Your task to perform on an android device: Open the Play Movies app and select the watchlist tab. Image 0: 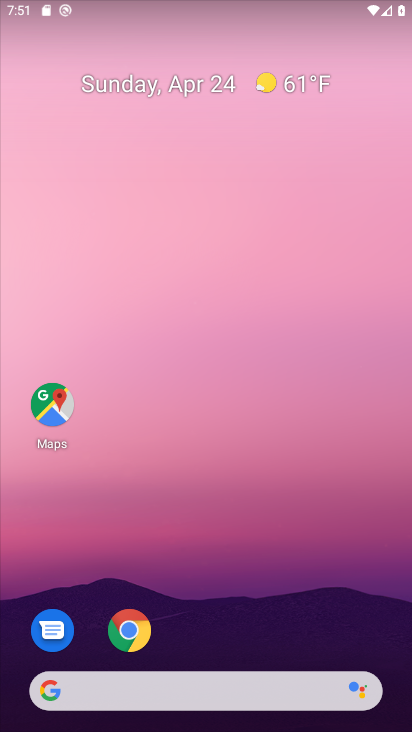
Step 0: drag from (361, 610) to (368, 30)
Your task to perform on an android device: Open the Play Movies app and select the watchlist tab. Image 1: 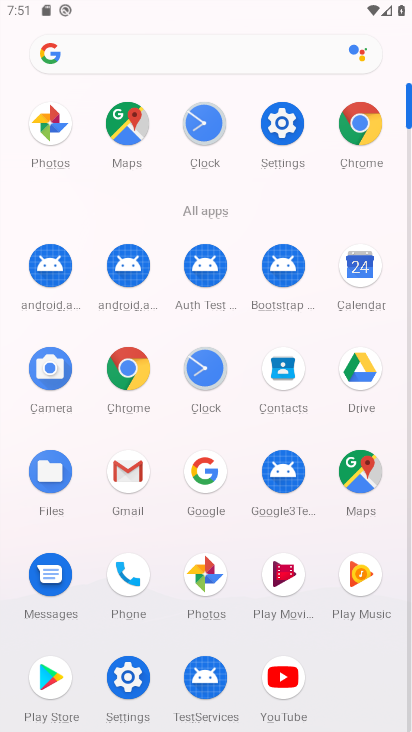
Step 1: click (277, 581)
Your task to perform on an android device: Open the Play Movies app and select the watchlist tab. Image 2: 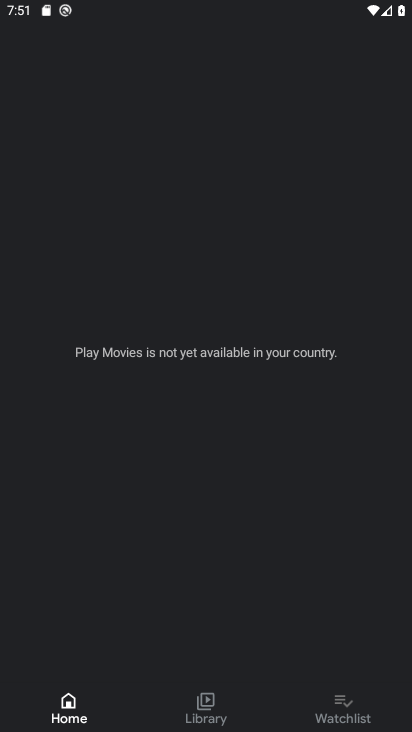
Step 2: click (344, 709)
Your task to perform on an android device: Open the Play Movies app and select the watchlist tab. Image 3: 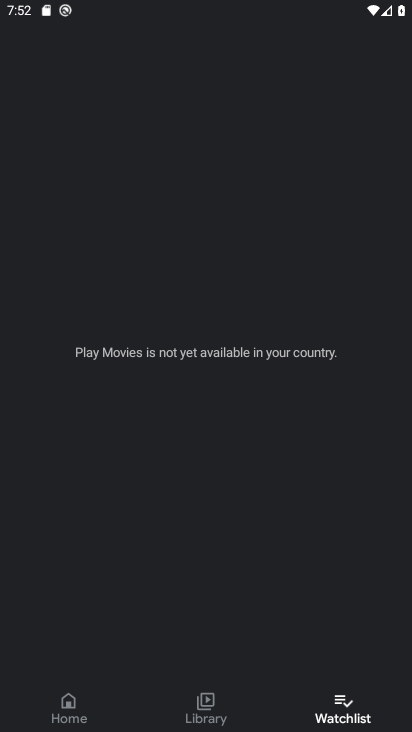
Step 3: task complete